Your task to perform on an android device: open chrome and create a bookmark for the current page Image 0: 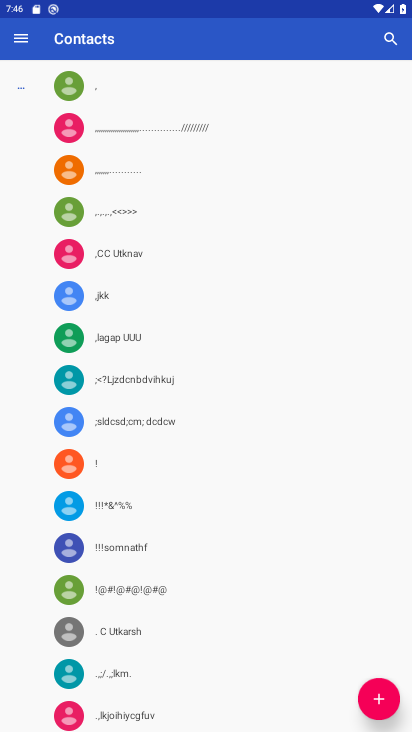
Step 0: press home button
Your task to perform on an android device: open chrome and create a bookmark for the current page Image 1: 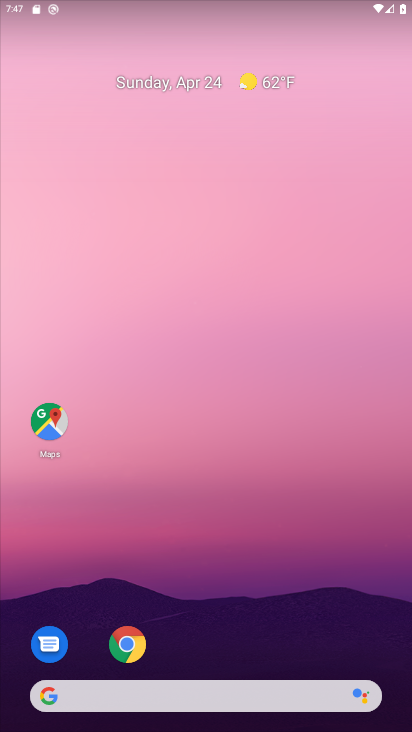
Step 1: click (128, 645)
Your task to perform on an android device: open chrome and create a bookmark for the current page Image 2: 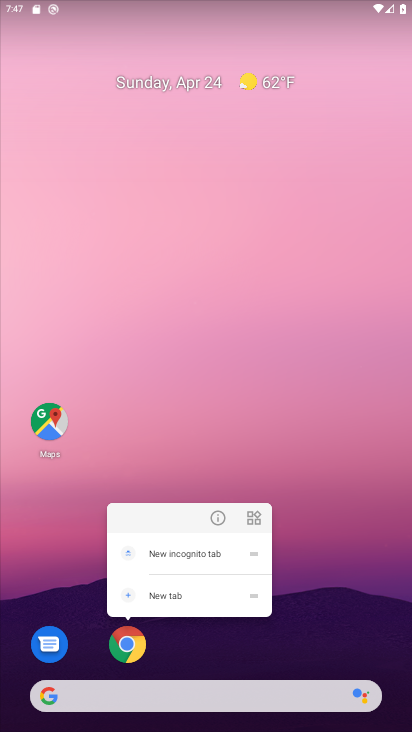
Step 2: click (210, 652)
Your task to perform on an android device: open chrome and create a bookmark for the current page Image 3: 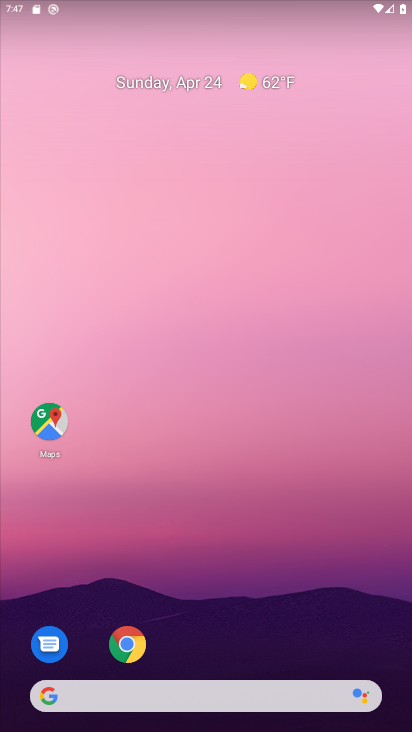
Step 3: drag from (304, 635) to (325, 78)
Your task to perform on an android device: open chrome and create a bookmark for the current page Image 4: 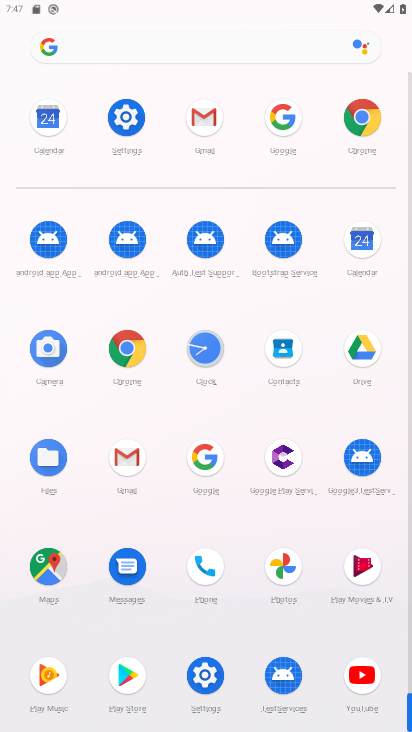
Step 4: click (364, 119)
Your task to perform on an android device: open chrome and create a bookmark for the current page Image 5: 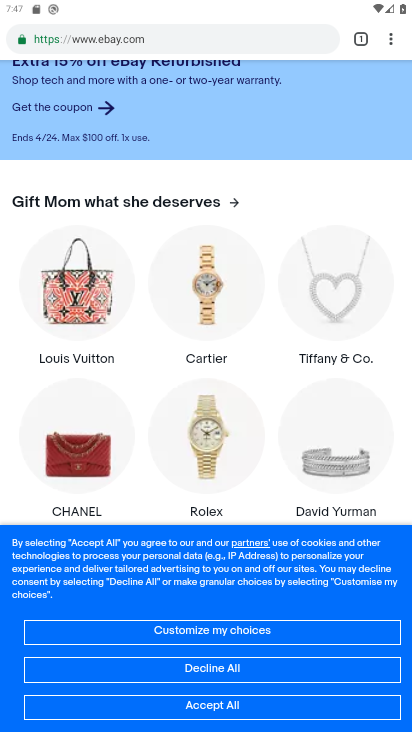
Step 5: click (388, 41)
Your task to perform on an android device: open chrome and create a bookmark for the current page Image 6: 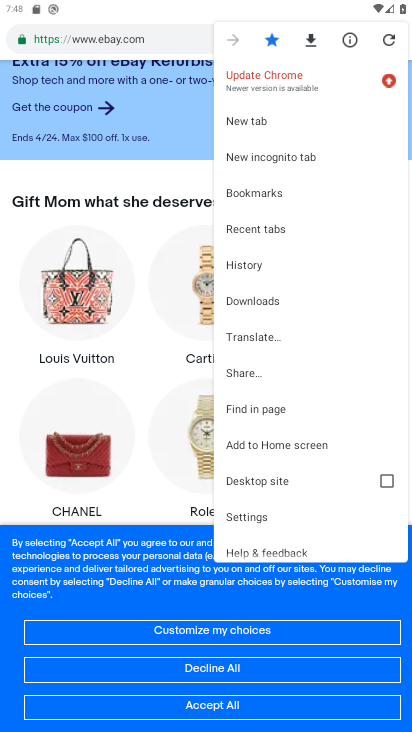
Step 6: task complete